Your task to perform on an android device: Open Chrome and go to settings Image 0: 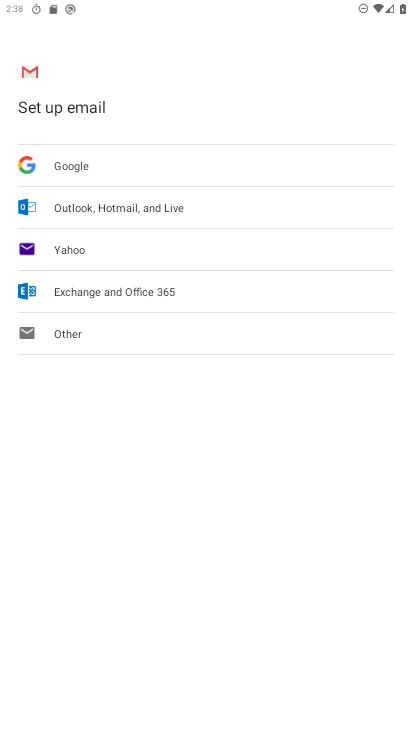
Step 0: press home button
Your task to perform on an android device: Open Chrome and go to settings Image 1: 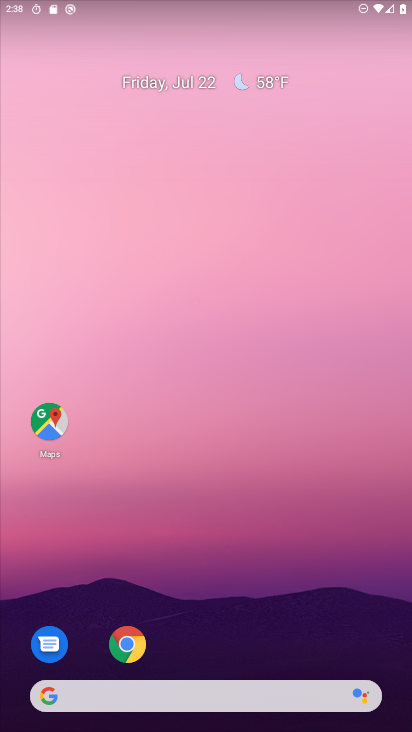
Step 1: click (138, 647)
Your task to perform on an android device: Open Chrome and go to settings Image 2: 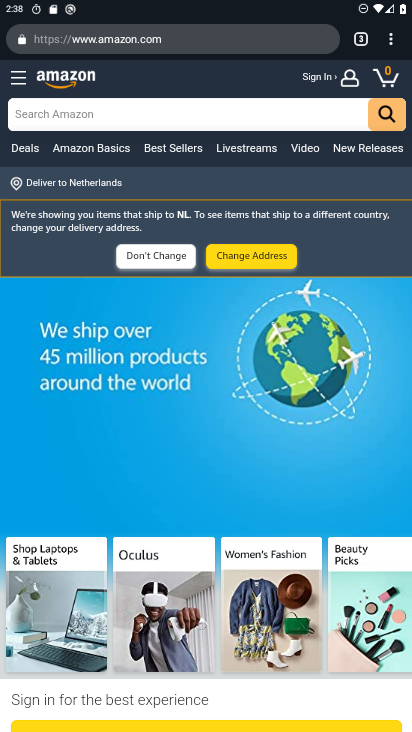
Step 2: click (392, 44)
Your task to perform on an android device: Open Chrome and go to settings Image 3: 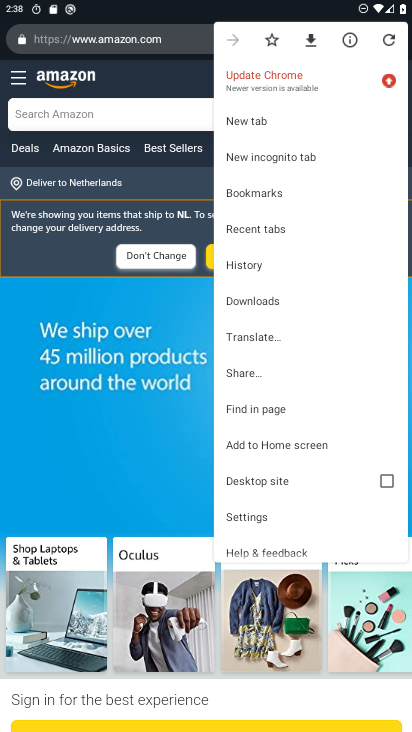
Step 3: click (275, 517)
Your task to perform on an android device: Open Chrome and go to settings Image 4: 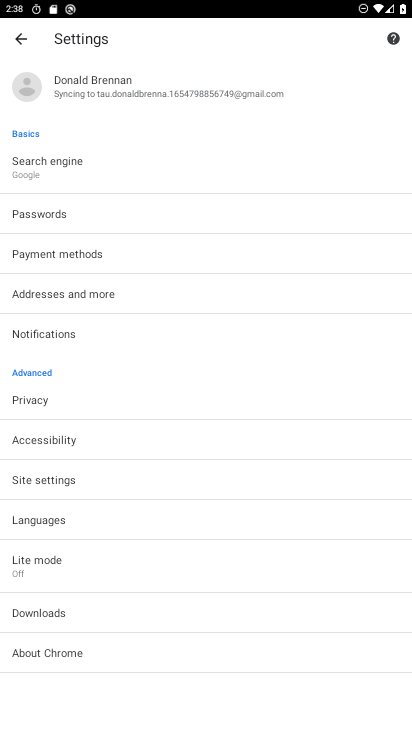
Step 4: task complete